Your task to perform on an android device: add a label to a message in the gmail app Image 0: 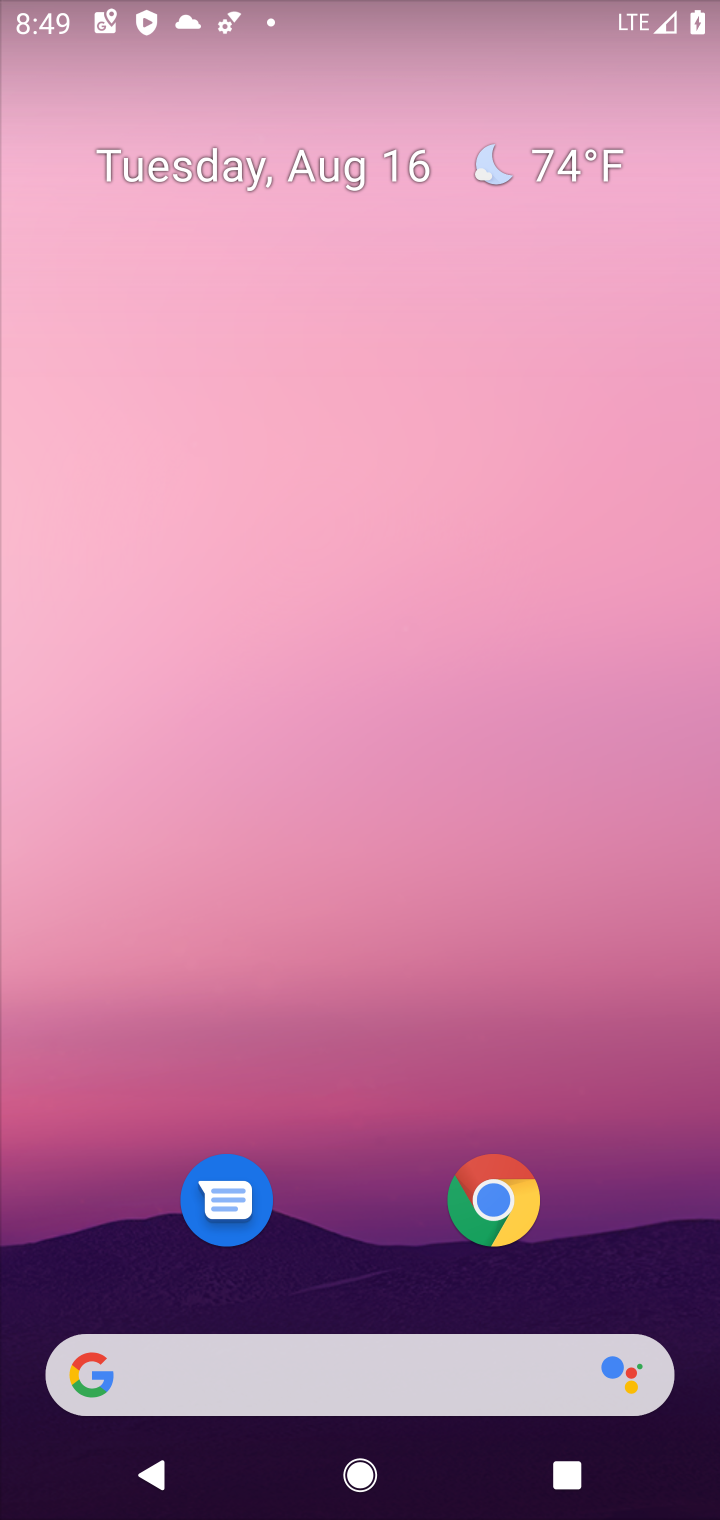
Step 0: drag from (614, 977) to (598, 275)
Your task to perform on an android device: add a label to a message in the gmail app Image 1: 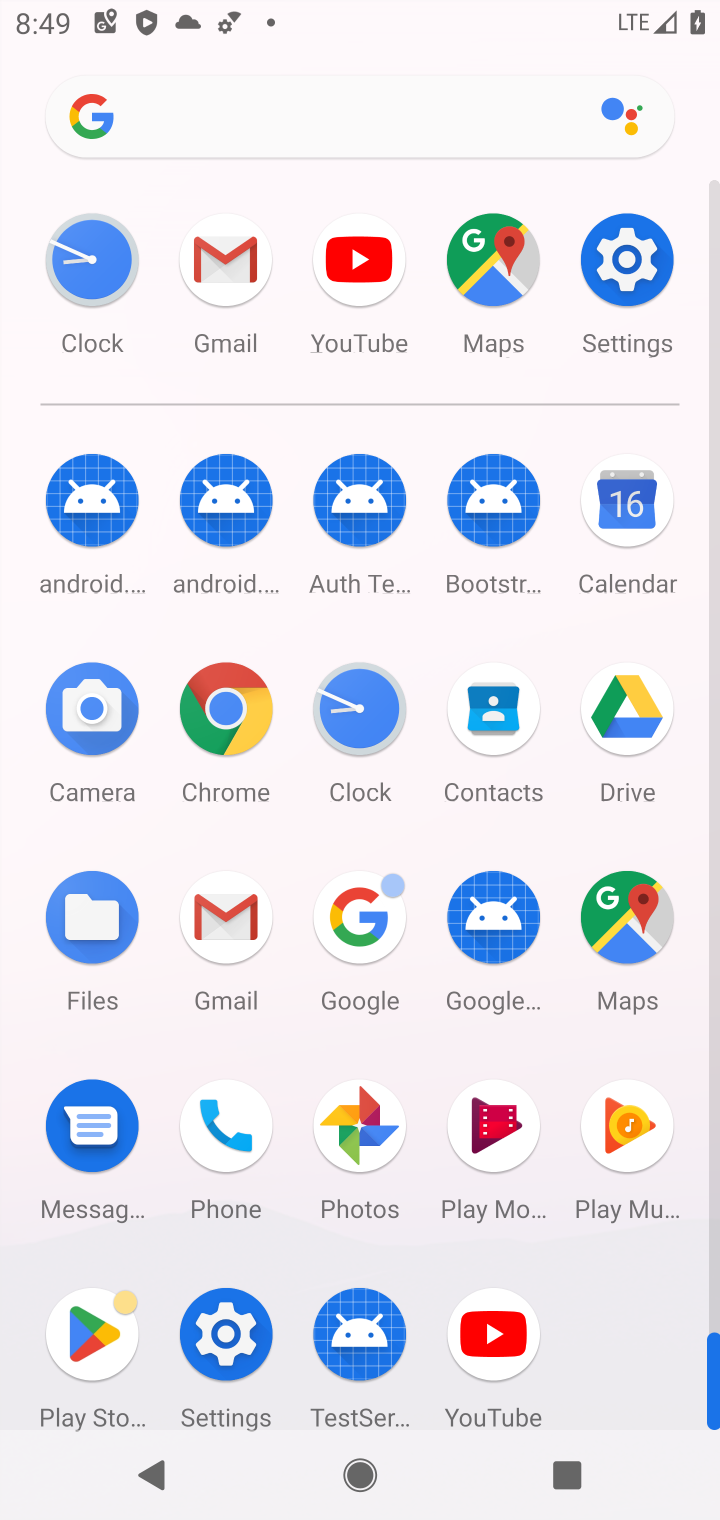
Step 1: click (224, 916)
Your task to perform on an android device: add a label to a message in the gmail app Image 2: 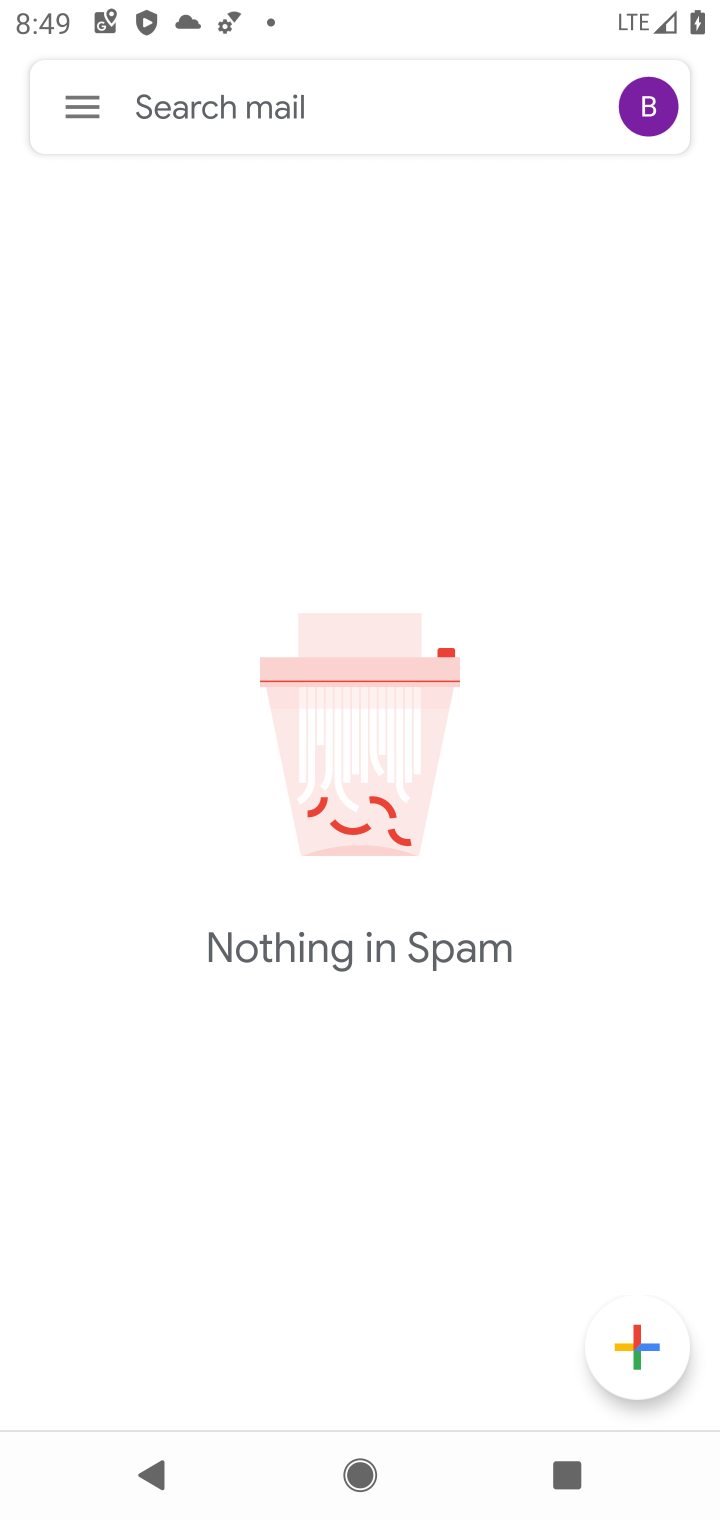
Step 2: click (75, 103)
Your task to perform on an android device: add a label to a message in the gmail app Image 3: 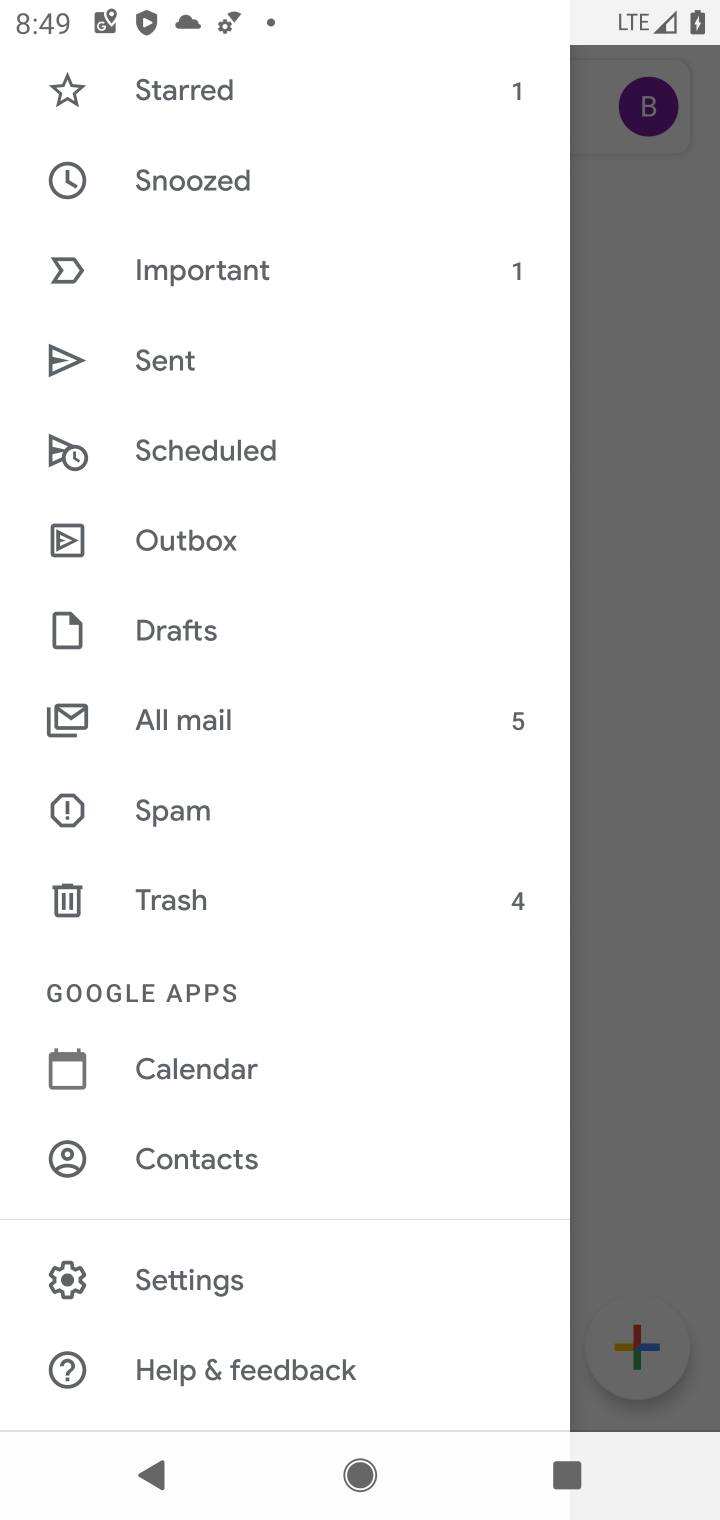
Step 3: click (222, 705)
Your task to perform on an android device: add a label to a message in the gmail app Image 4: 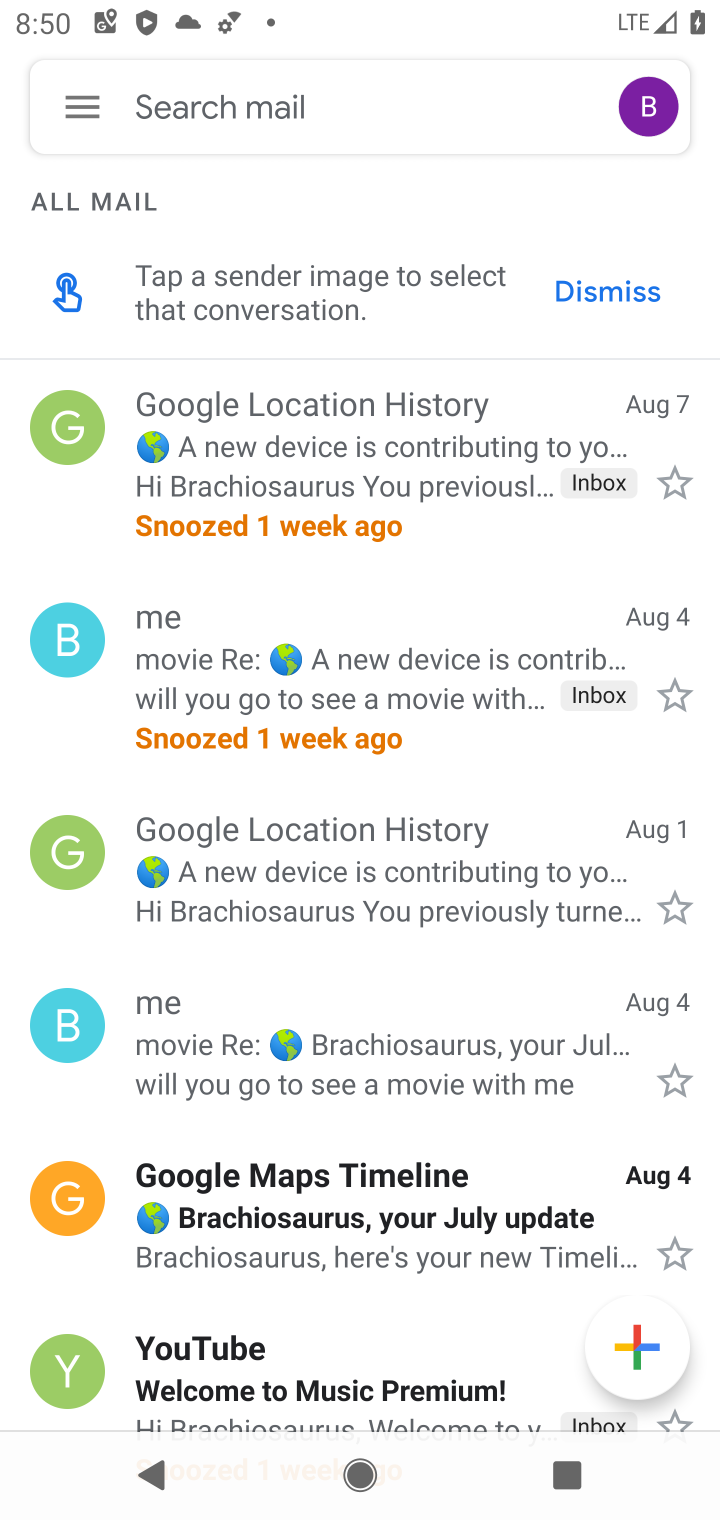
Step 4: click (380, 908)
Your task to perform on an android device: add a label to a message in the gmail app Image 5: 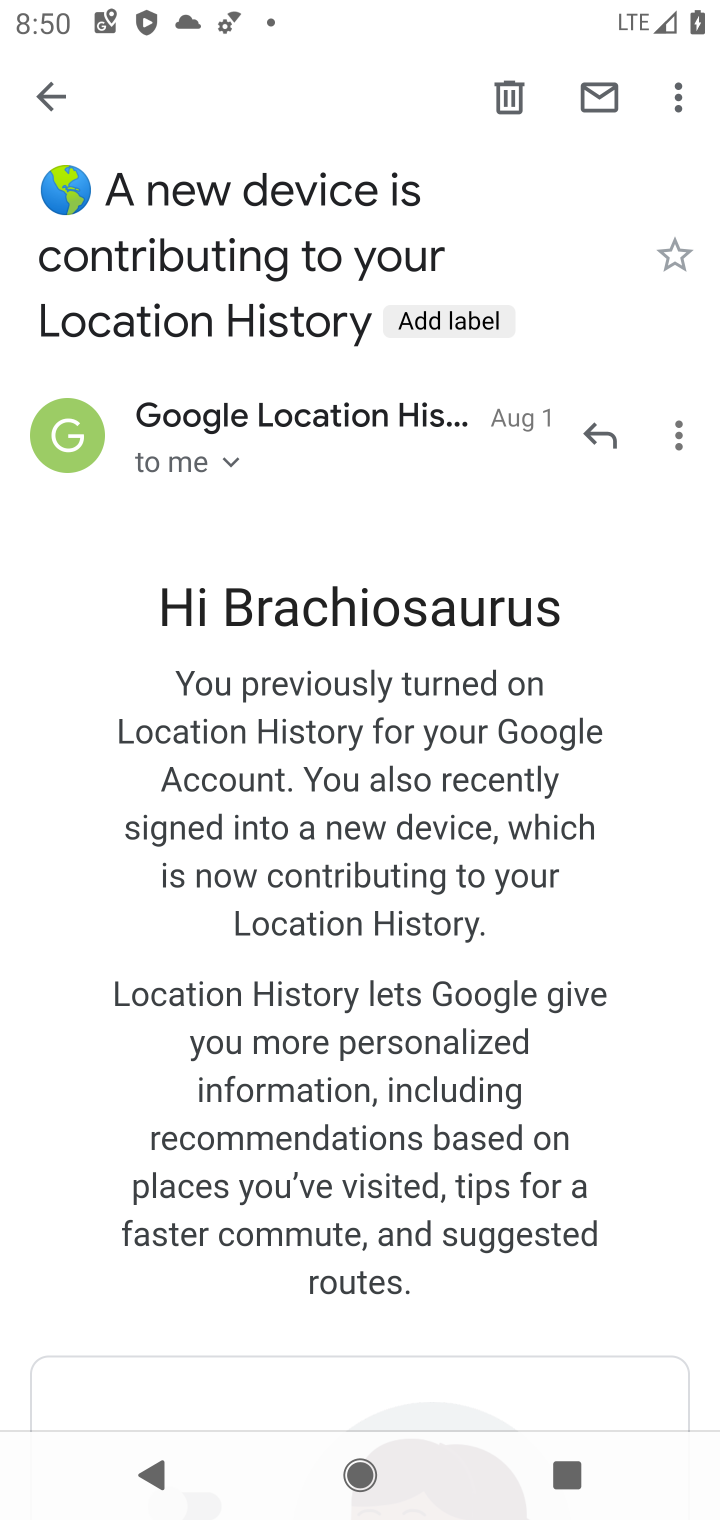
Step 5: click (672, 106)
Your task to perform on an android device: add a label to a message in the gmail app Image 6: 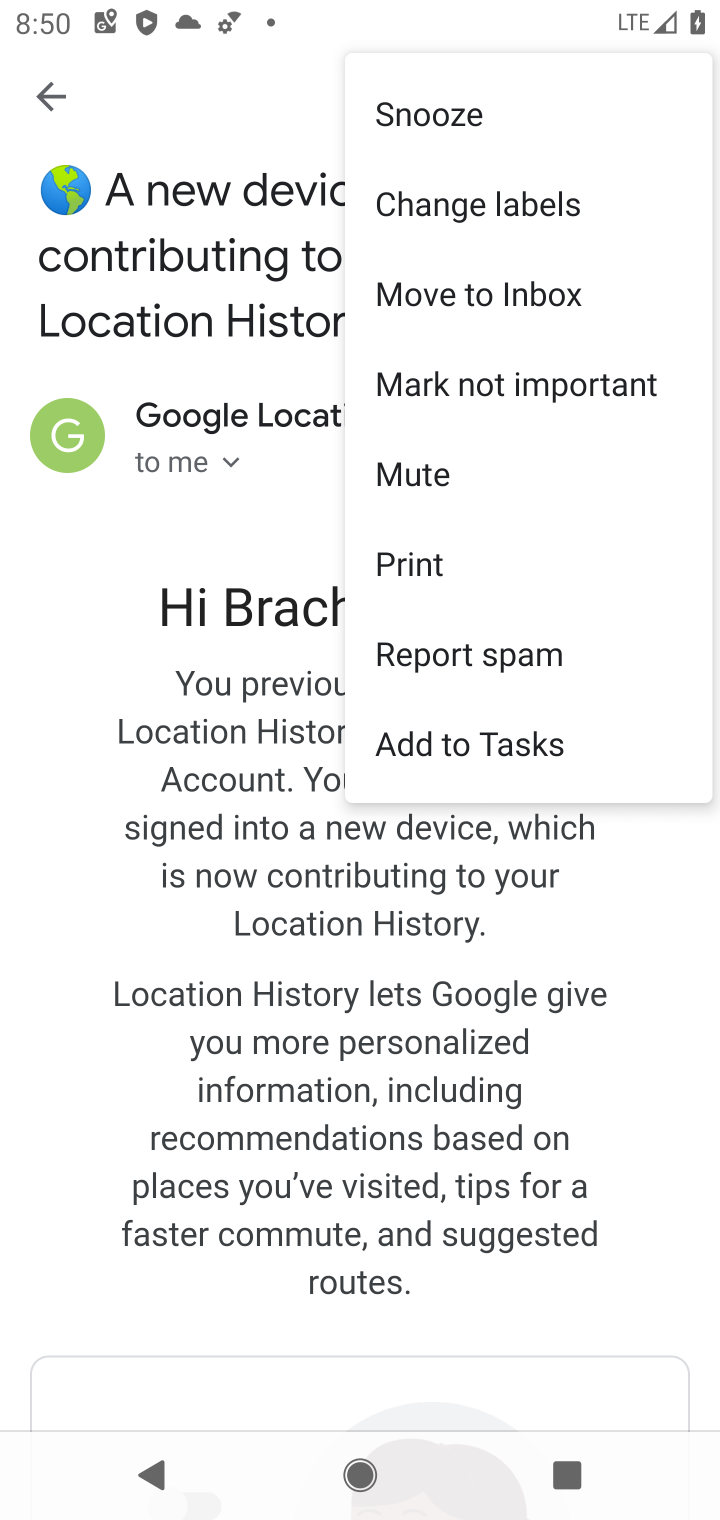
Step 6: click (475, 191)
Your task to perform on an android device: add a label to a message in the gmail app Image 7: 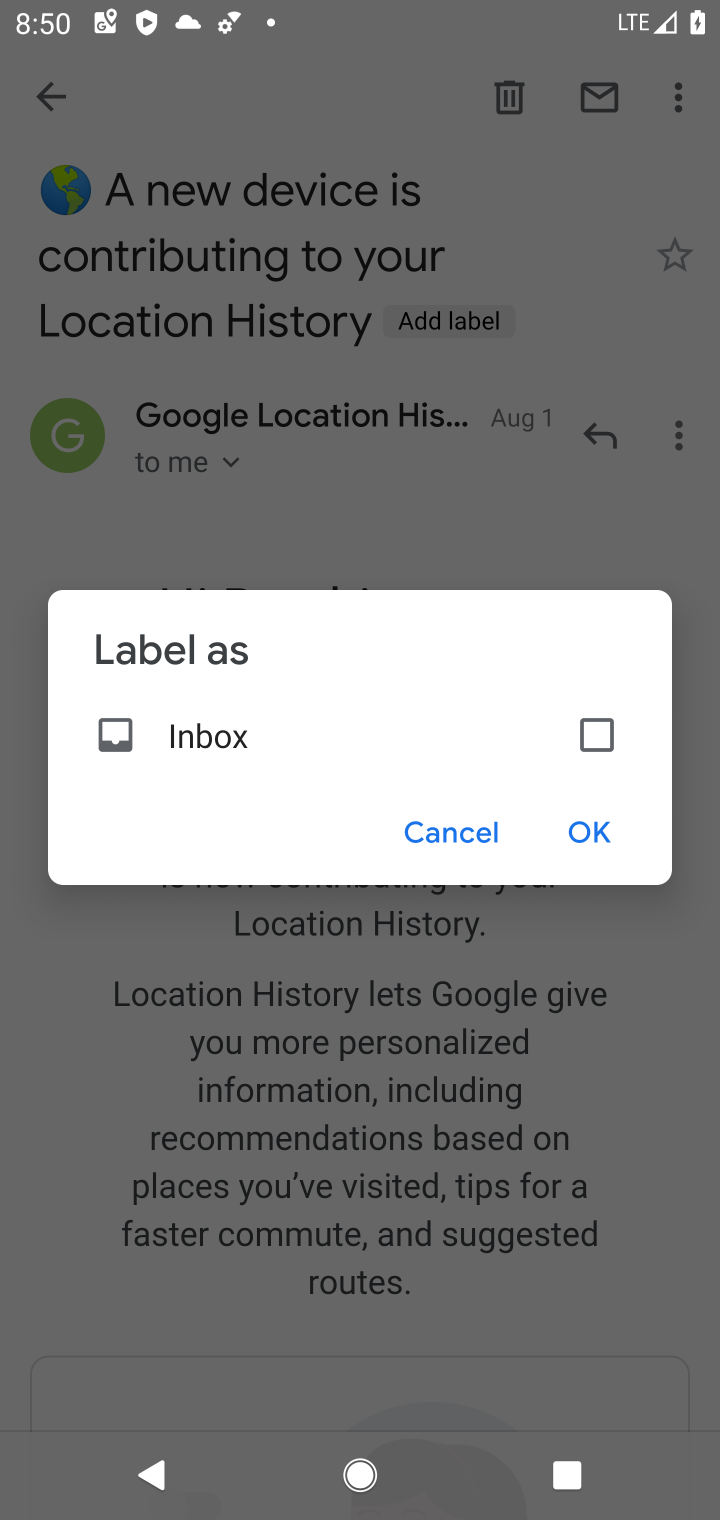
Step 7: click (603, 734)
Your task to perform on an android device: add a label to a message in the gmail app Image 8: 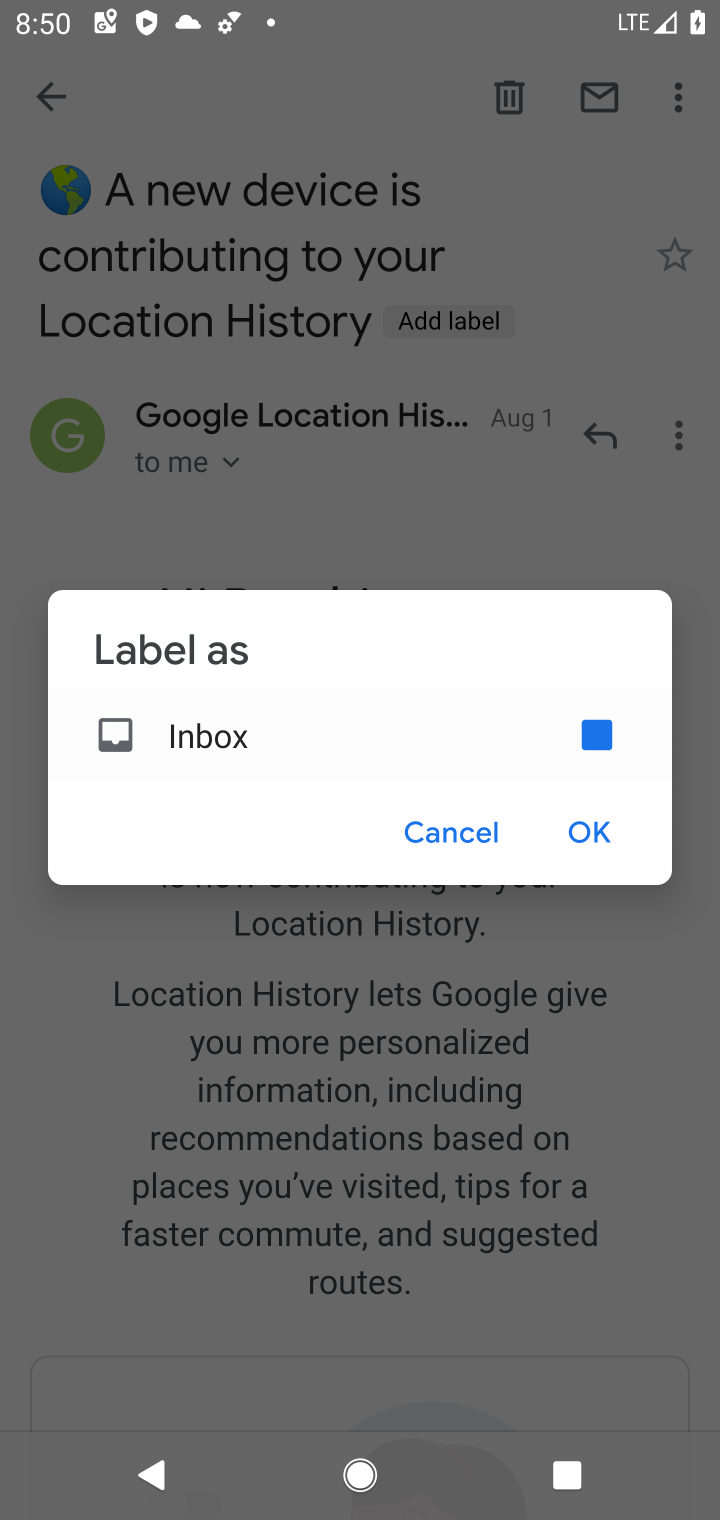
Step 8: click (597, 830)
Your task to perform on an android device: add a label to a message in the gmail app Image 9: 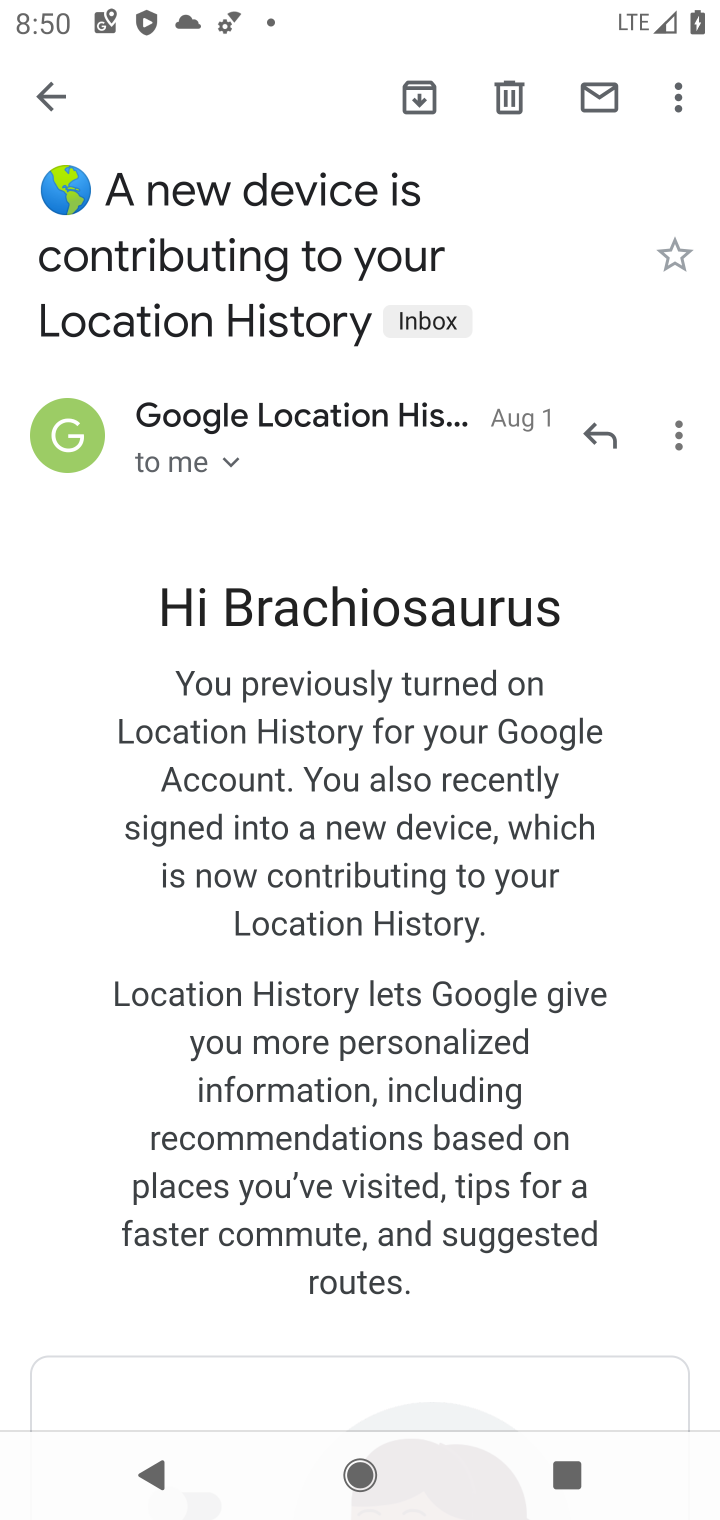
Step 9: task complete